Your task to perform on an android device: open app "Adobe Acrobat Reader: Edit PDF" Image 0: 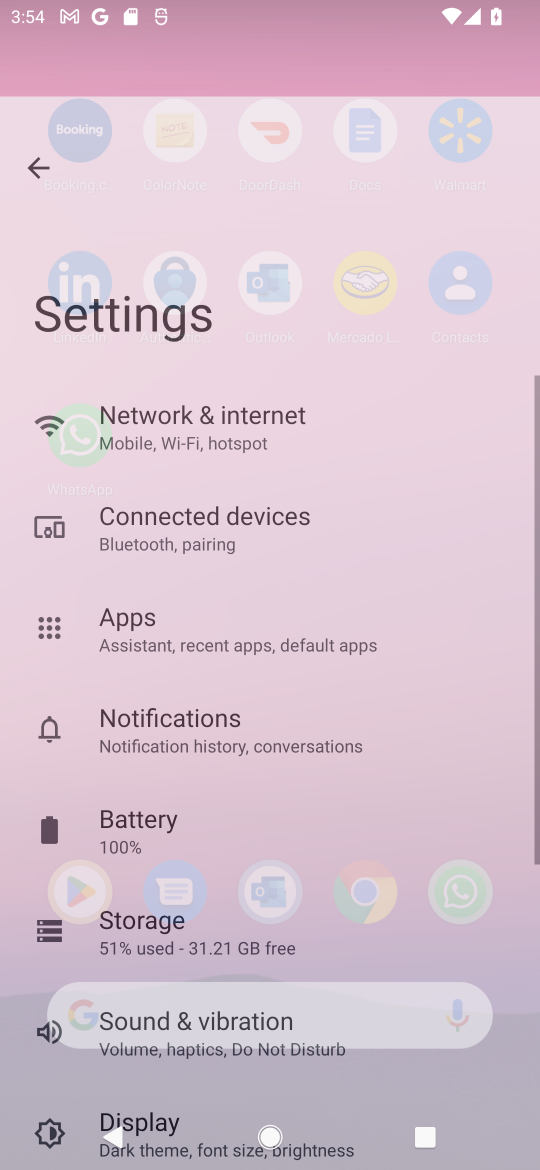
Step 0: click (408, 16)
Your task to perform on an android device: open app "Adobe Acrobat Reader: Edit PDF" Image 1: 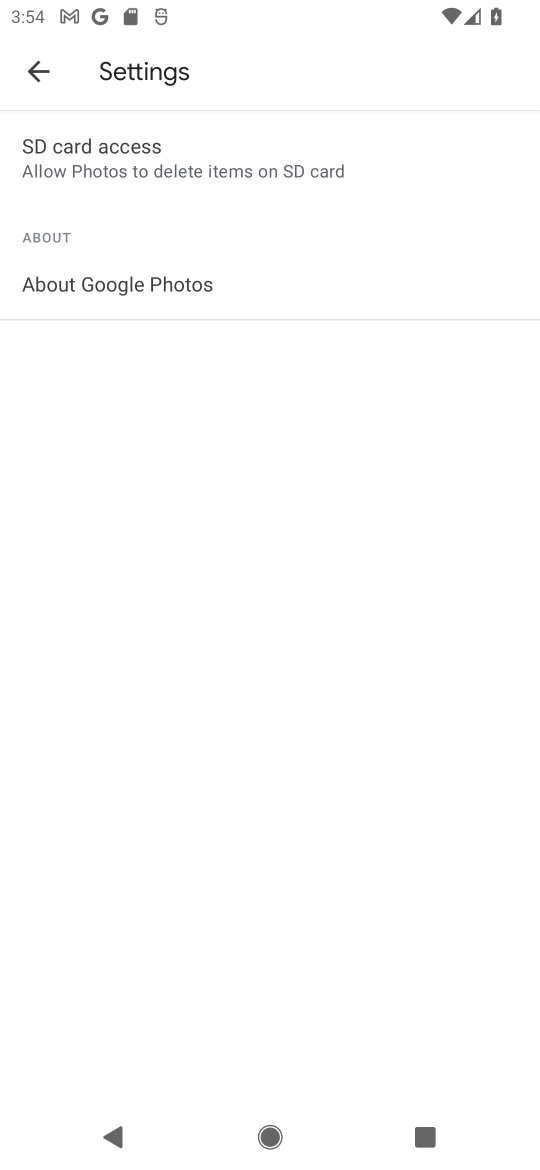
Step 1: press home button
Your task to perform on an android device: open app "Adobe Acrobat Reader: Edit PDF" Image 2: 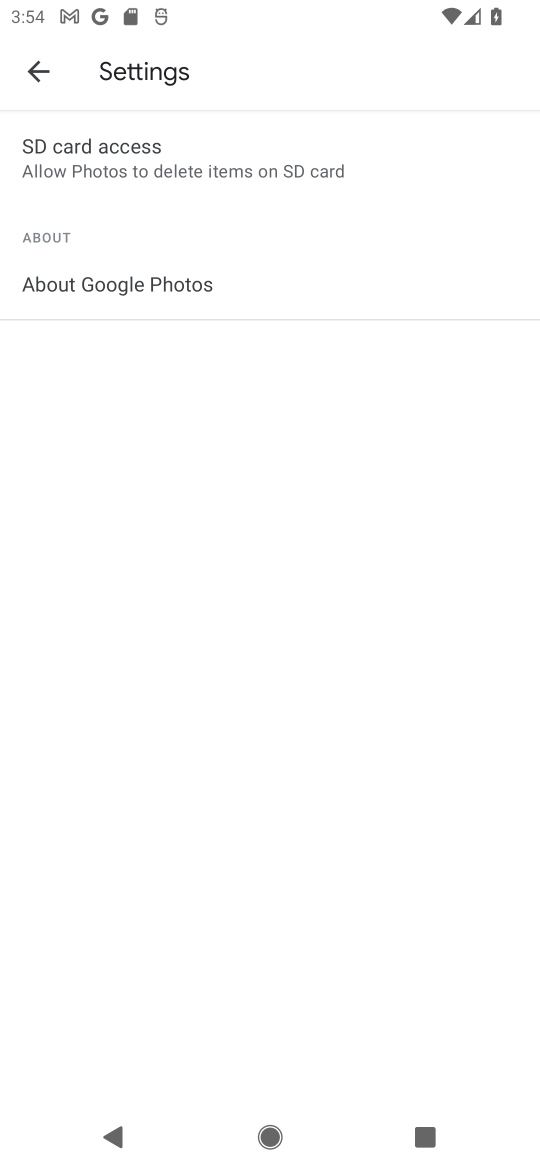
Step 2: press home button
Your task to perform on an android device: open app "Adobe Acrobat Reader: Edit PDF" Image 3: 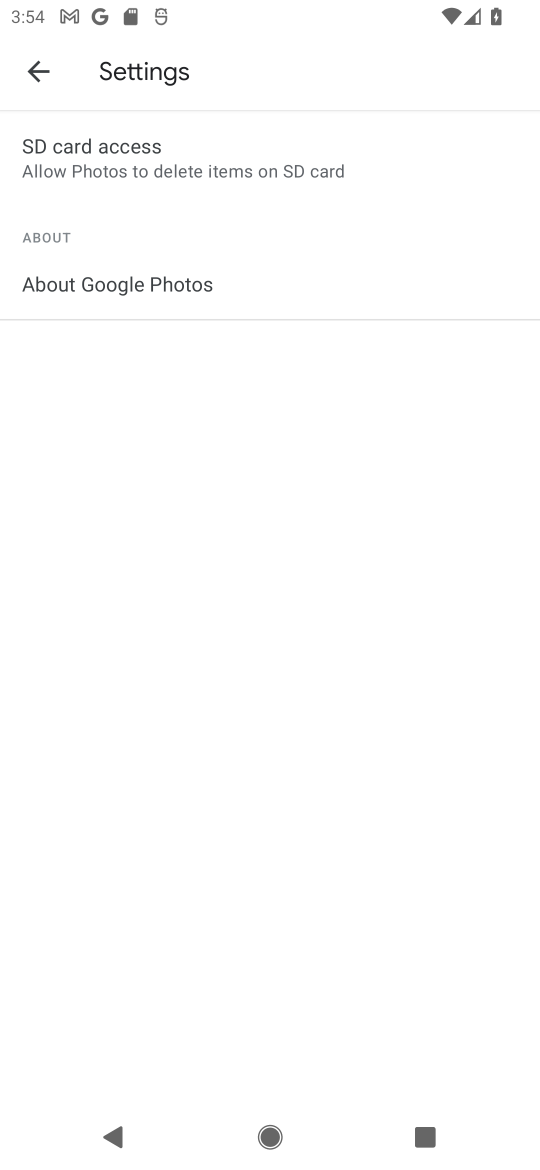
Step 3: press home button
Your task to perform on an android device: open app "Adobe Acrobat Reader: Edit PDF" Image 4: 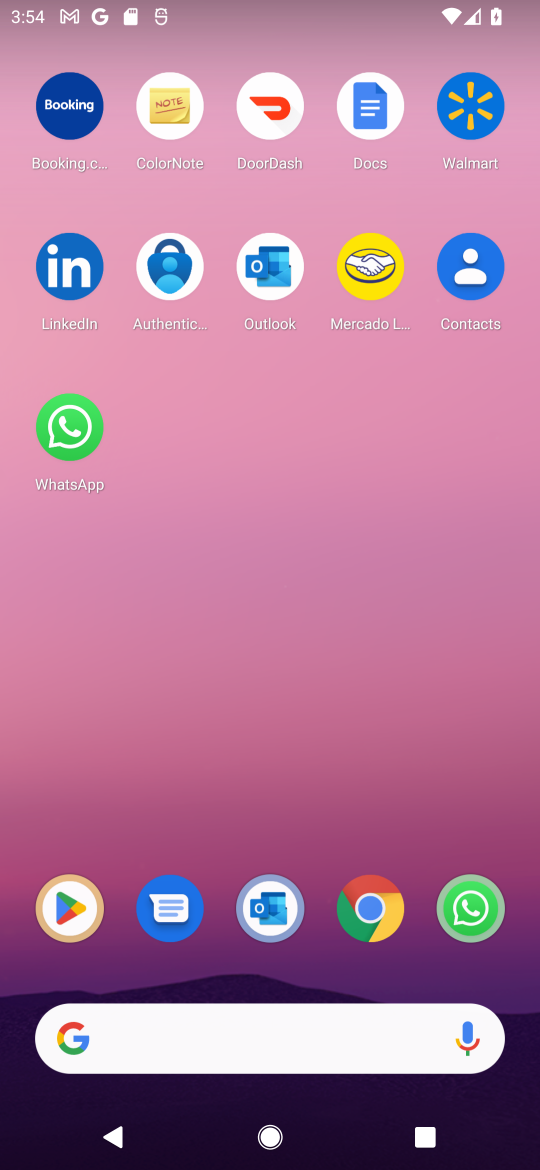
Step 4: press home button
Your task to perform on an android device: open app "Adobe Acrobat Reader: Edit PDF" Image 5: 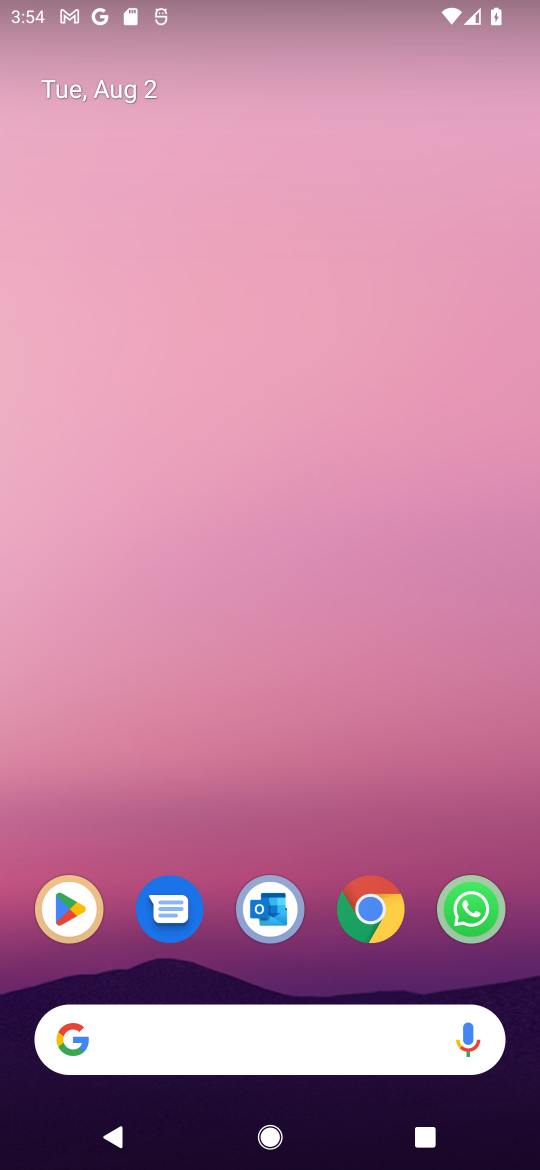
Step 5: press home button
Your task to perform on an android device: open app "Adobe Acrobat Reader: Edit PDF" Image 6: 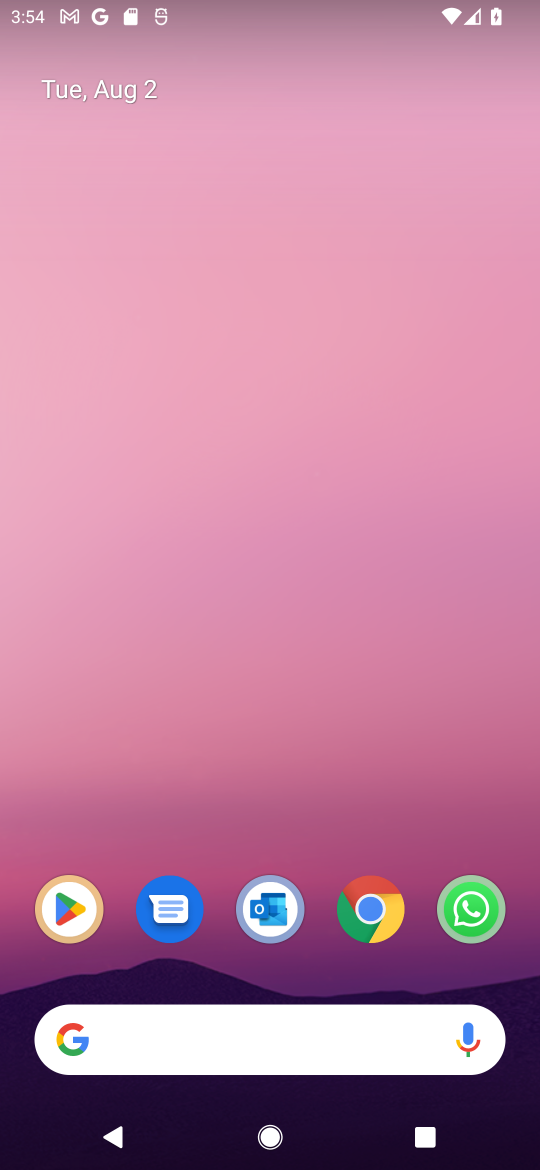
Step 6: press home button
Your task to perform on an android device: open app "Adobe Acrobat Reader: Edit PDF" Image 7: 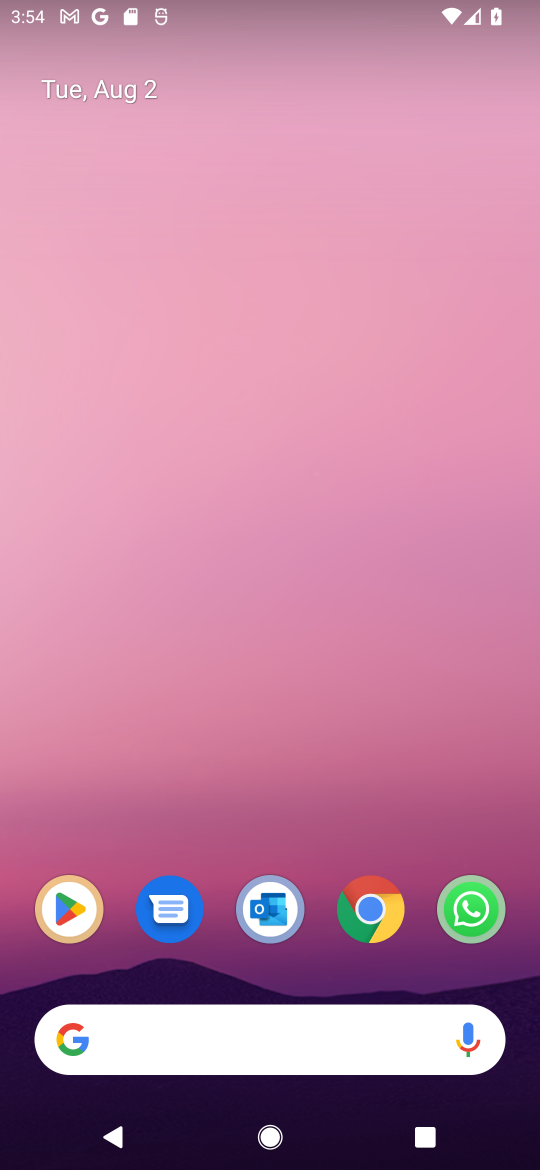
Step 7: press home button
Your task to perform on an android device: open app "Adobe Acrobat Reader: Edit PDF" Image 8: 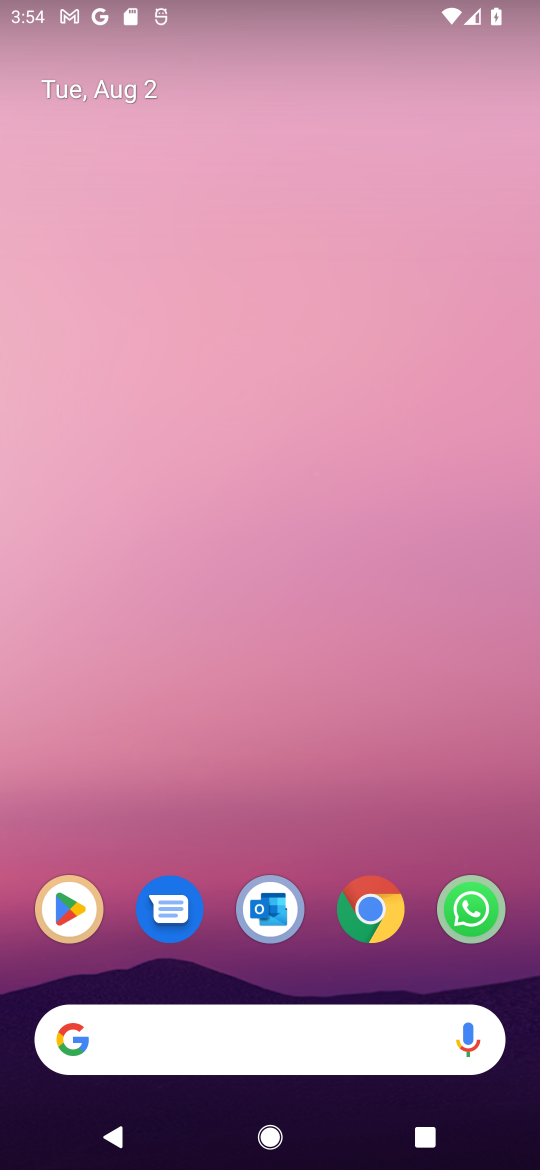
Step 8: press home button
Your task to perform on an android device: open app "Adobe Acrobat Reader: Edit PDF" Image 9: 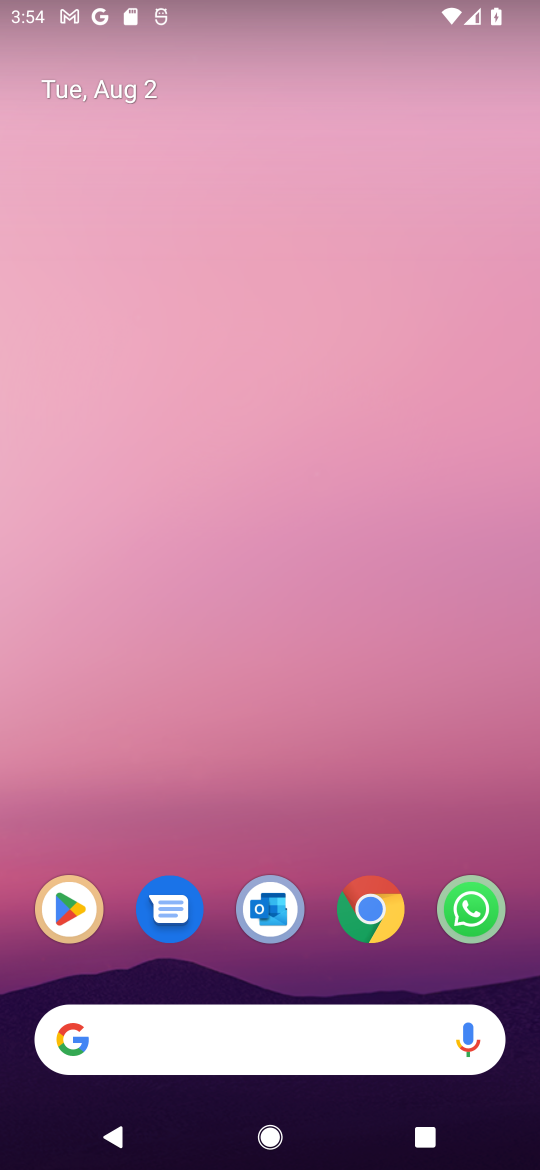
Step 9: click (68, 911)
Your task to perform on an android device: open app "Adobe Acrobat Reader: Edit PDF" Image 10: 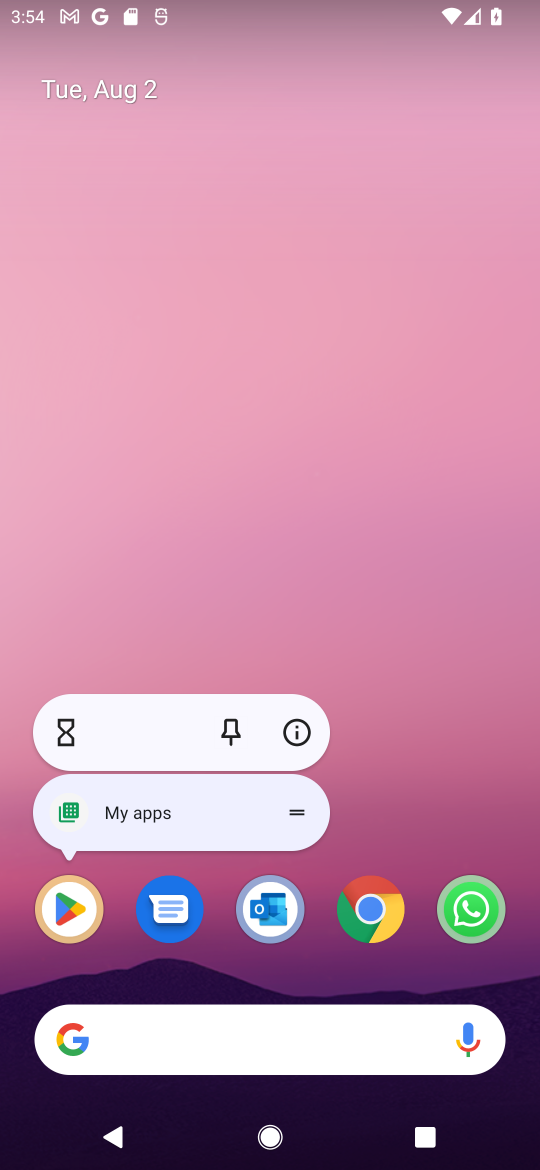
Step 10: click (295, 718)
Your task to perform on an android device: open app "Adobe Acrobat Reader: Edit PDF" Image 11: 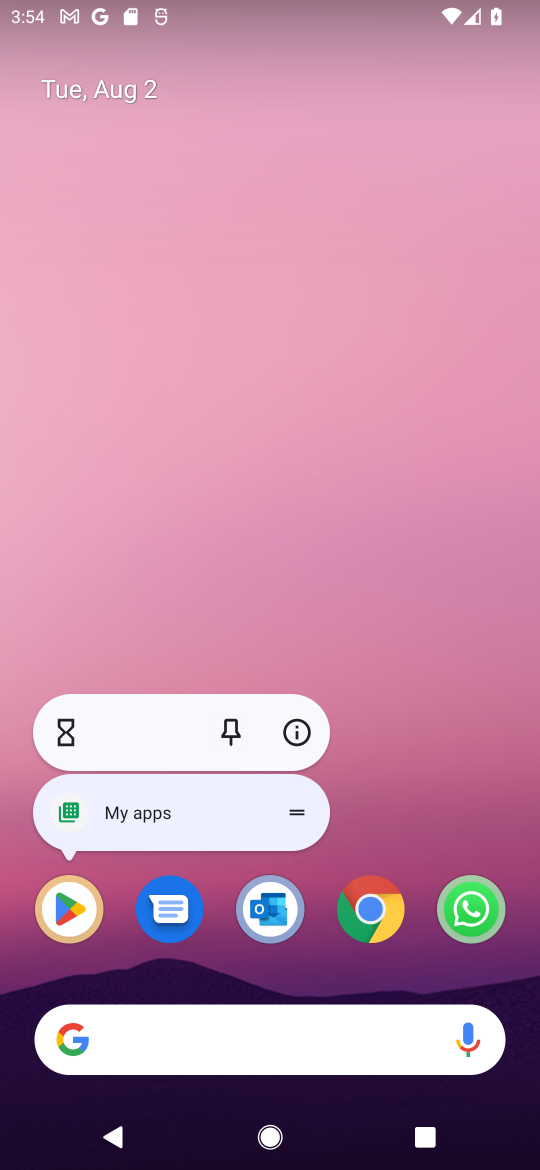
Step 11: click (298, 721)
Your task to perform on an android device: open app "Adobe Acrobat Reader: Edit PDF" Image 12: 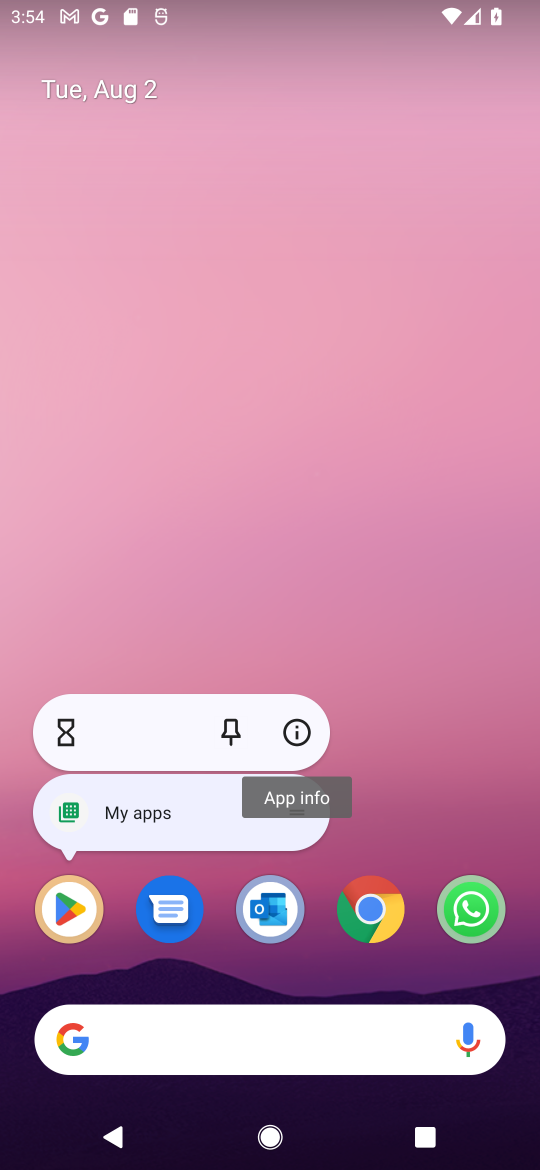
Step 12: click (306, 728)
Your task to perform on an android device: open app "Adobe Acrobat Reader: Edit PDF" Image 13: 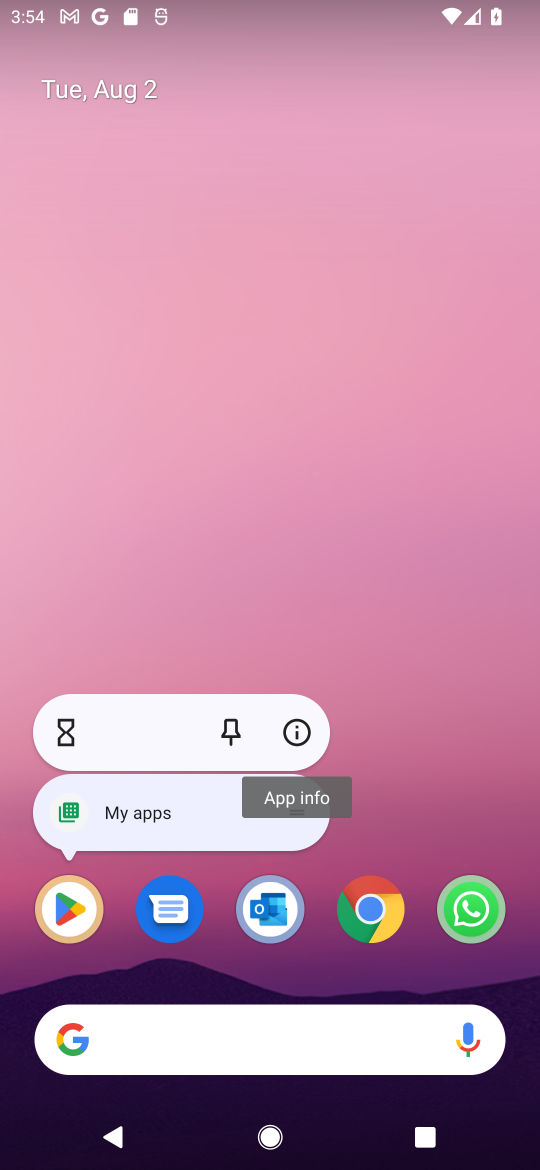
Step 13: click (306, 728)
Your task to perform on an android device: open app "Adobe Acrobat Reader: Edit PDF" Image 14: 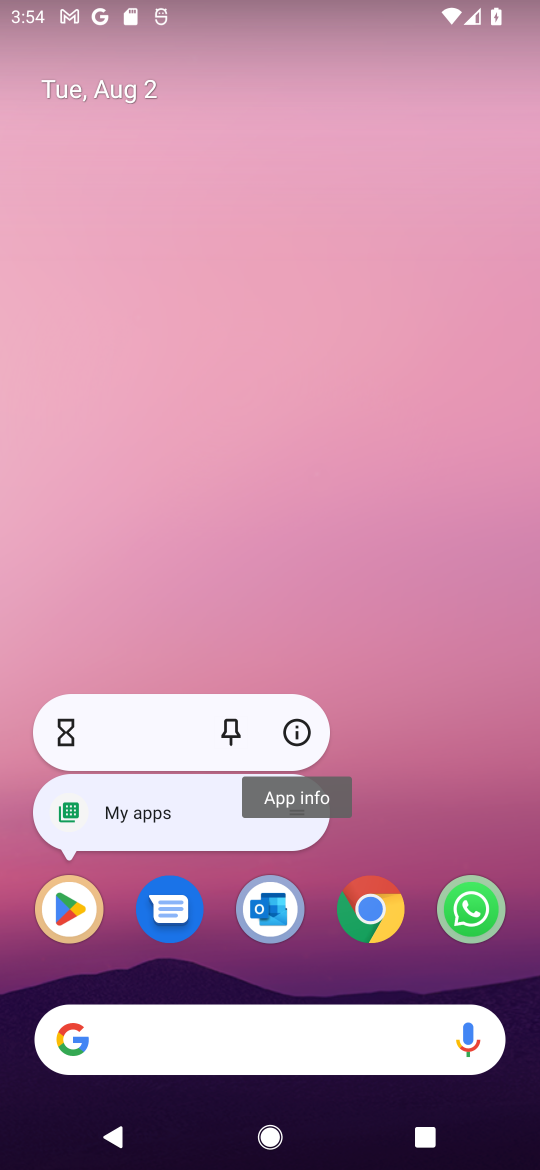
Step 14: click (289, 728)
Your task to perform on an android device: open app "Adobe Acrobat Reader: Edit PDF" Image 15: 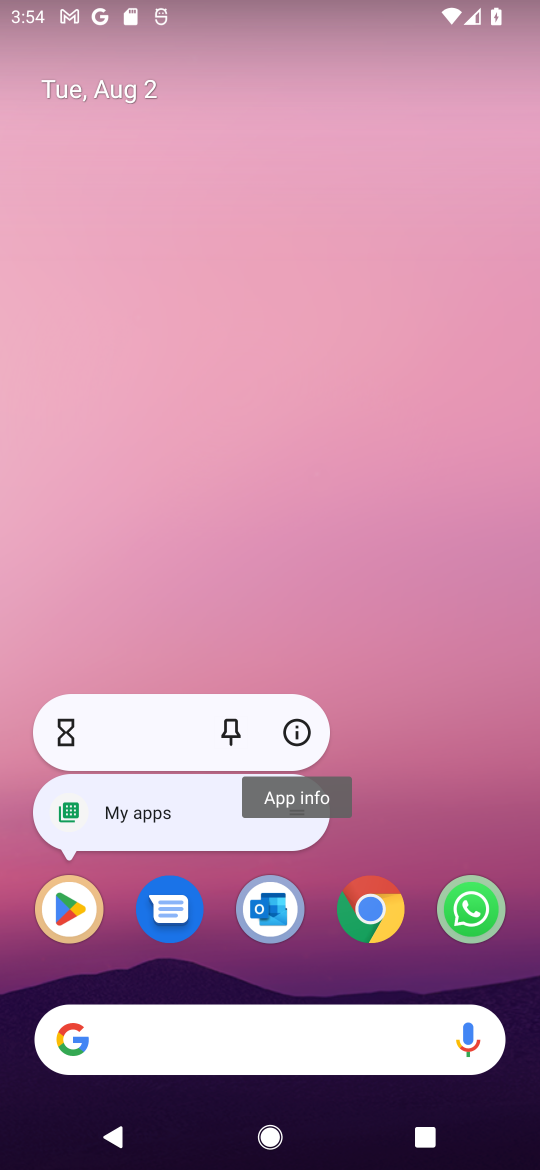
Step 15: click (286, 730)
Your task to perform on an android device: open app "Adobe Acrobat Reader: Edit PDF" Image 16: 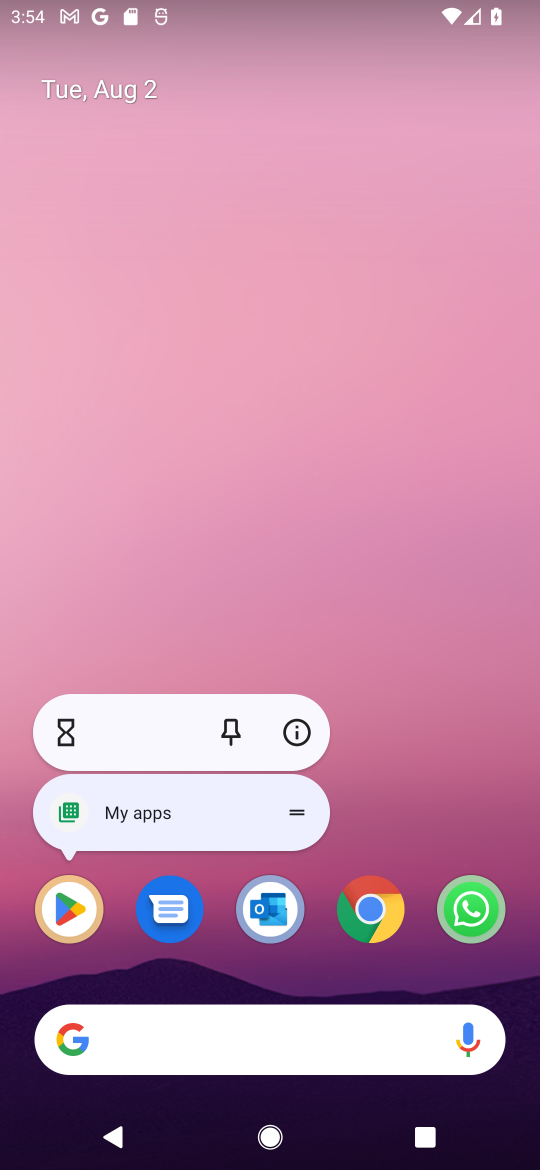
Step 16: click (309, 741)
Your task to perform on an android device: open app "Adobe Acrobat Reader: Edit PDF" Image 17: 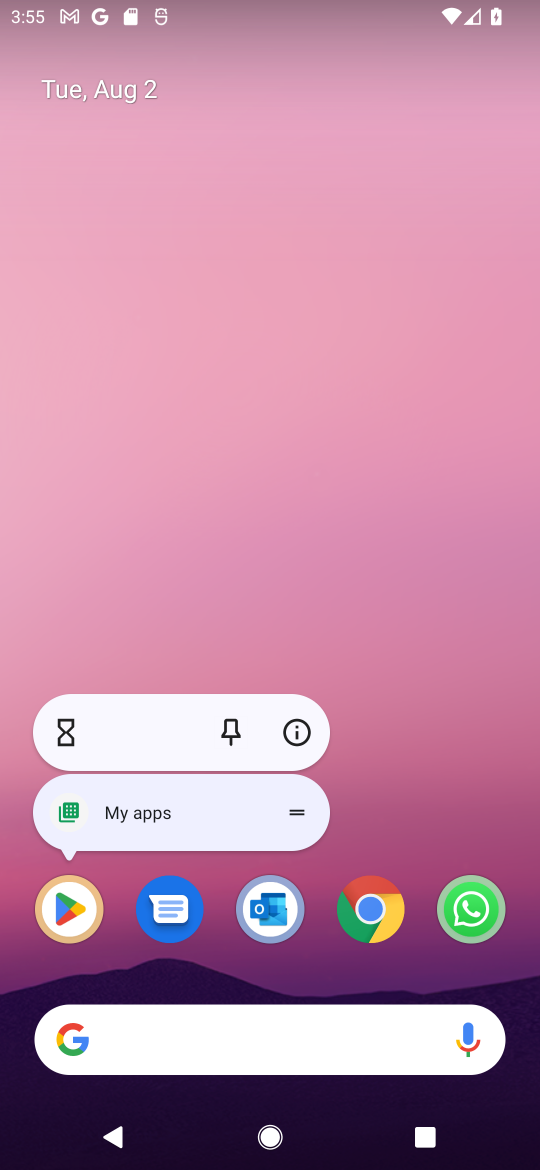
Step 17: click (303, 747)
Your task to perform on an android device: open app "Adobe Acrobat Reader: Edit PDF" Image 18: 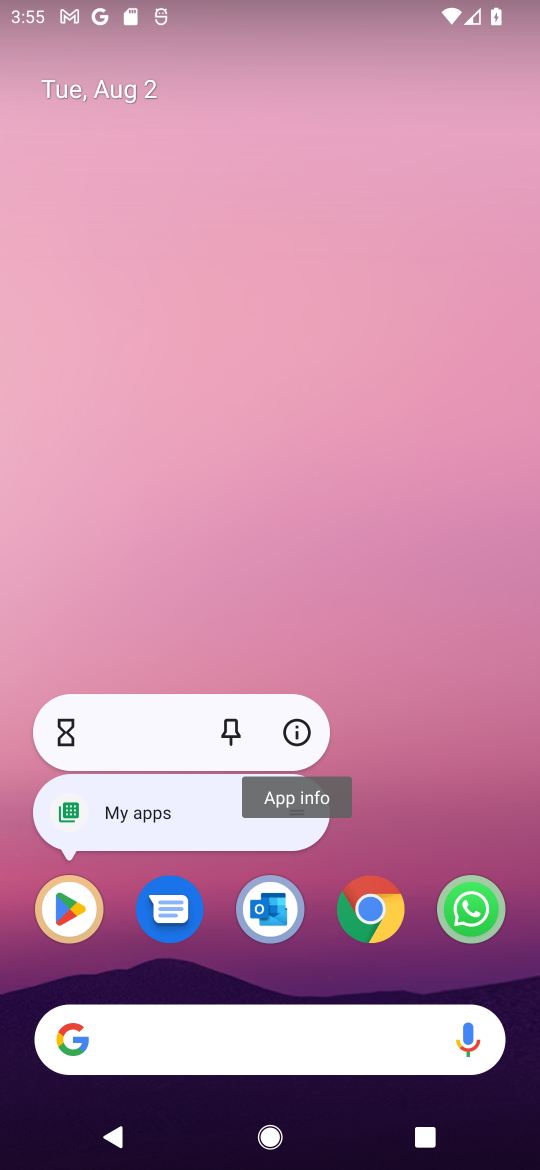
Step 18: click (303, 747)
Your task to perform on an android device: open app "Adobe Acrobat Reader: Edit PDF" Image 19: 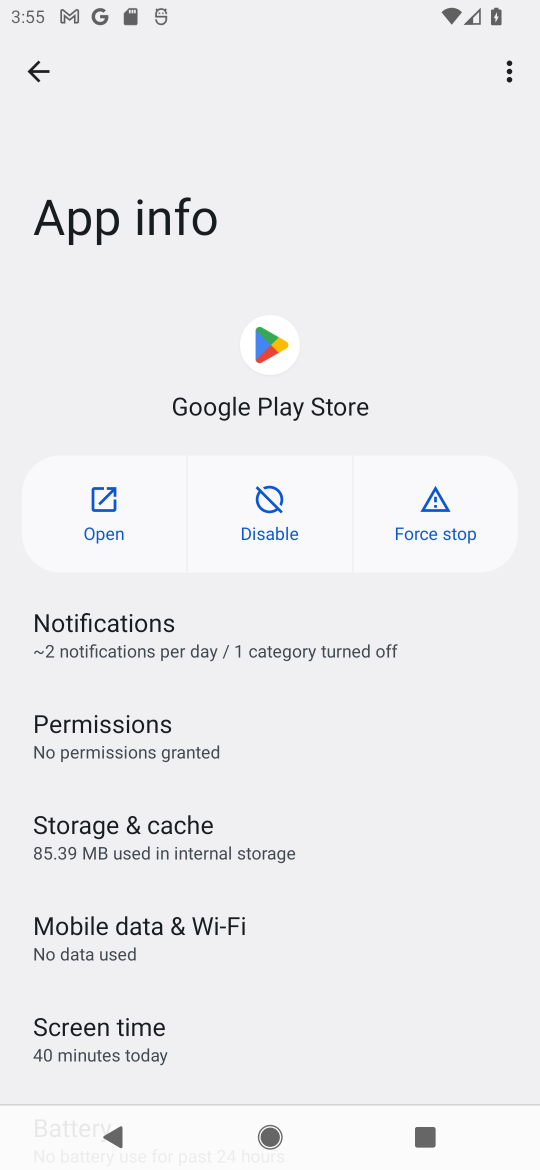
Step 19: click (164, 663)
Your task to perform on an android device: open app "Adobe Acrobat Reader: Edit PDF" Image 20: 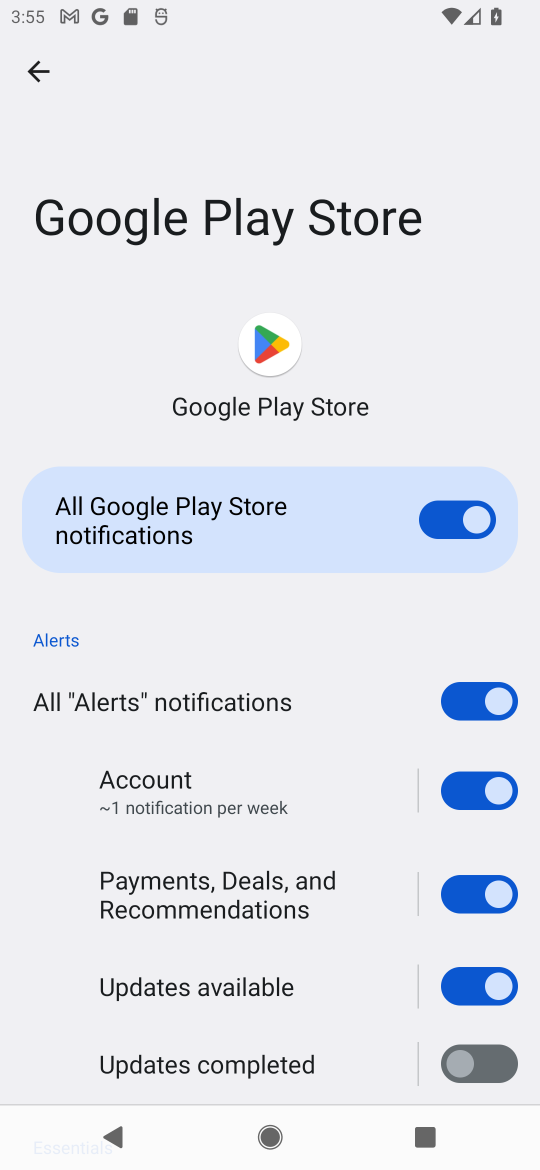
Step 20: press back button
Your task to perform on an android device: open app "Adobe Acrobat Reader: Edit PDF" Image 21: 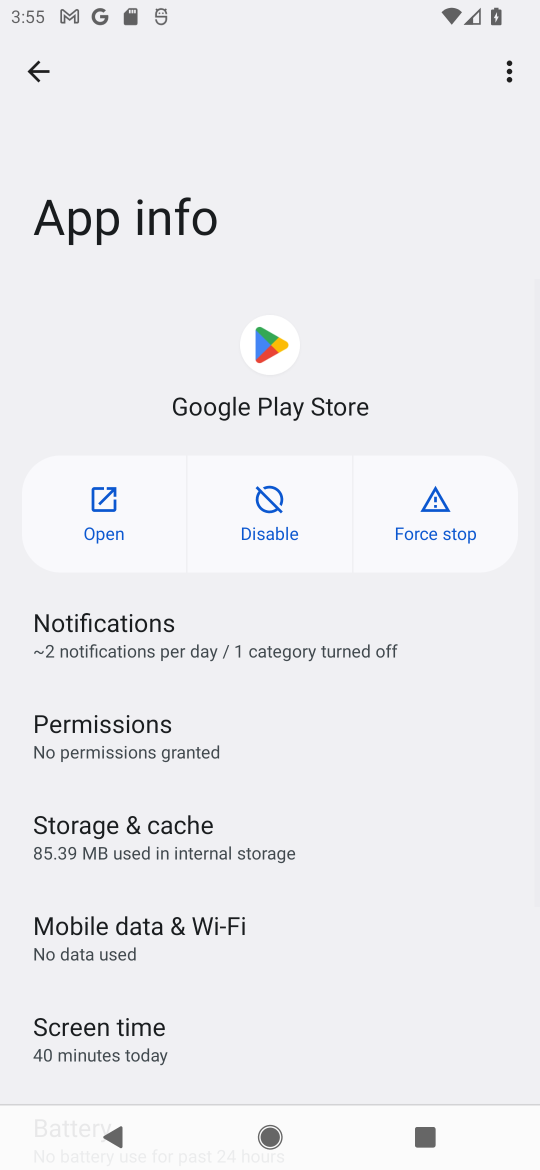
Step 21: click (97, 485)
Your task to perform on an android device: open app "Adobe Acrobat Reader: Edit PDF" Image 22: 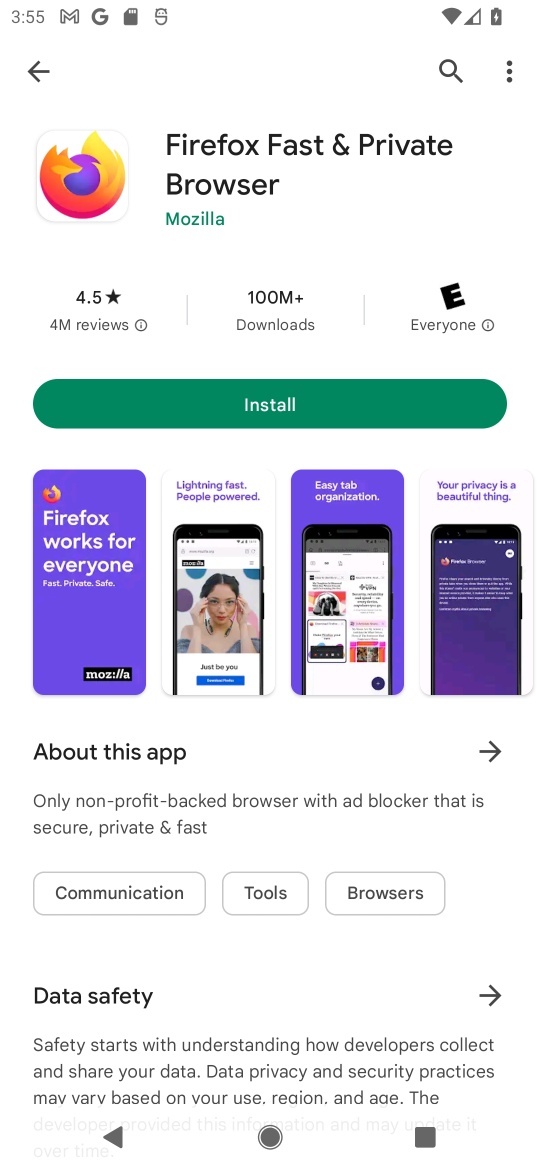
Step 22: click (446, 65)
Your task to perform on an android device: open app "Adobe Acrobat Reader: Edit PDF" Image 23: 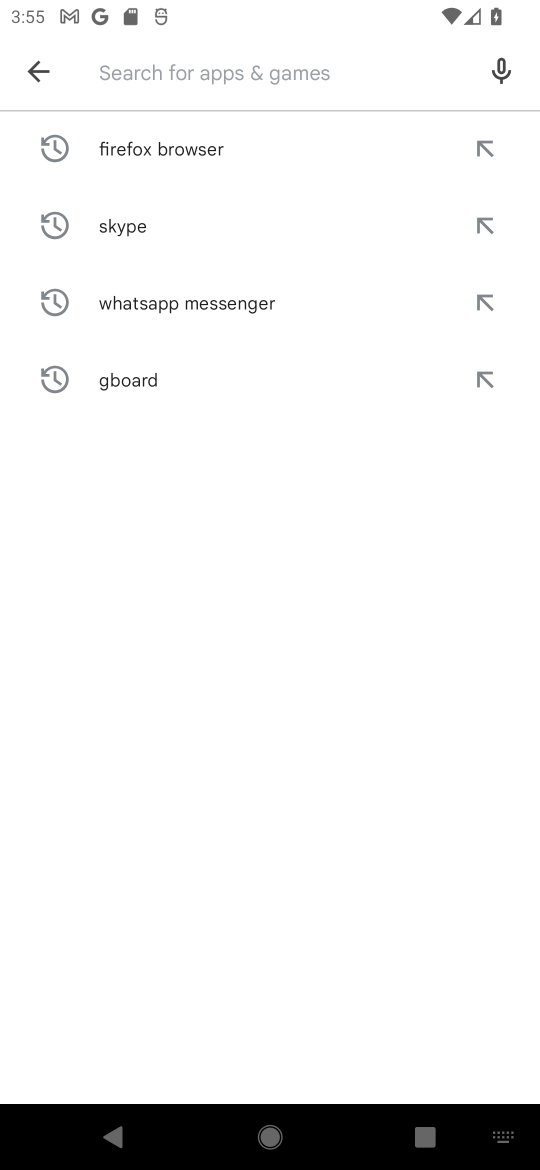
Step 23: type "Adobe Acrobat Reader: Edit PDF"
Your task to perform on an android device: open app "Adobe Acrobat Reader: Edit PDF" Image 24: 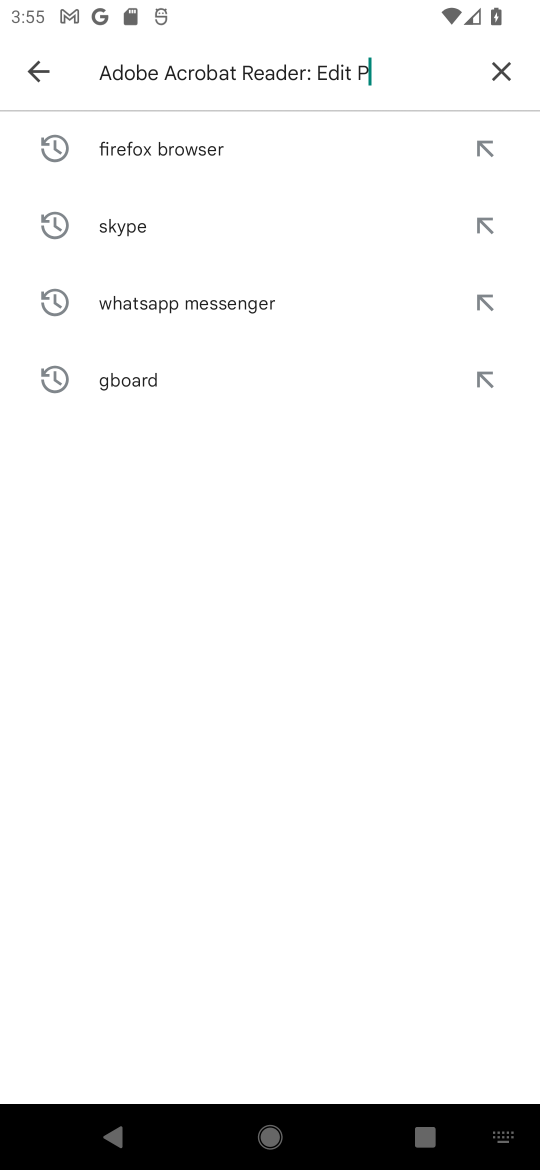
Step 24: type ""
Your task to perform on an android device: open app "Adobe Acrobat Reader: Edit PDF" Image 25: 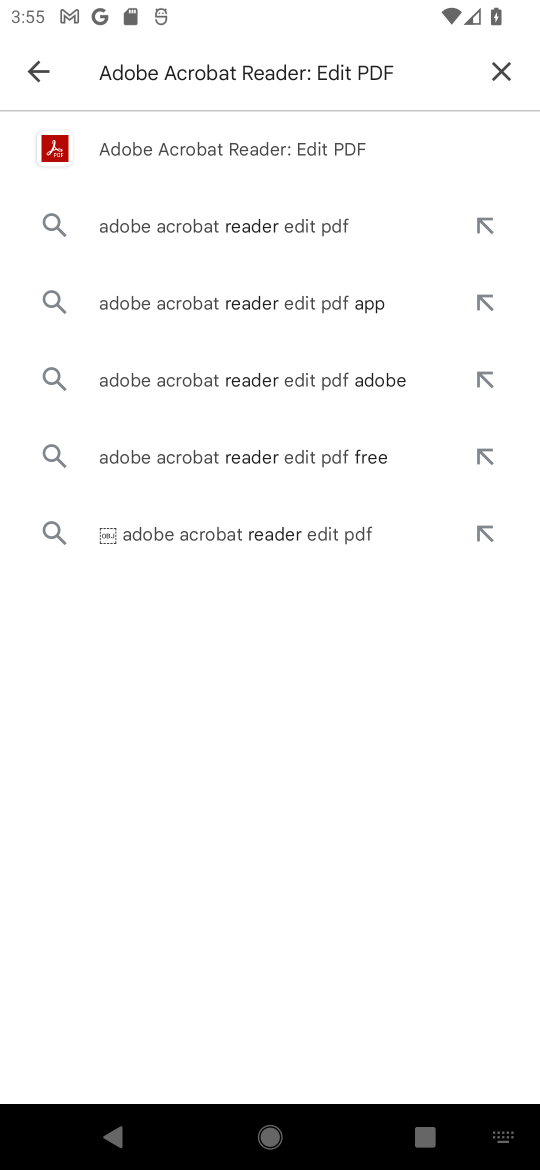
Step 25: click (157, 130)
Your task to perform on an android device: open app "Adobe Acrobat Reader: Edit PDF" Image 26: 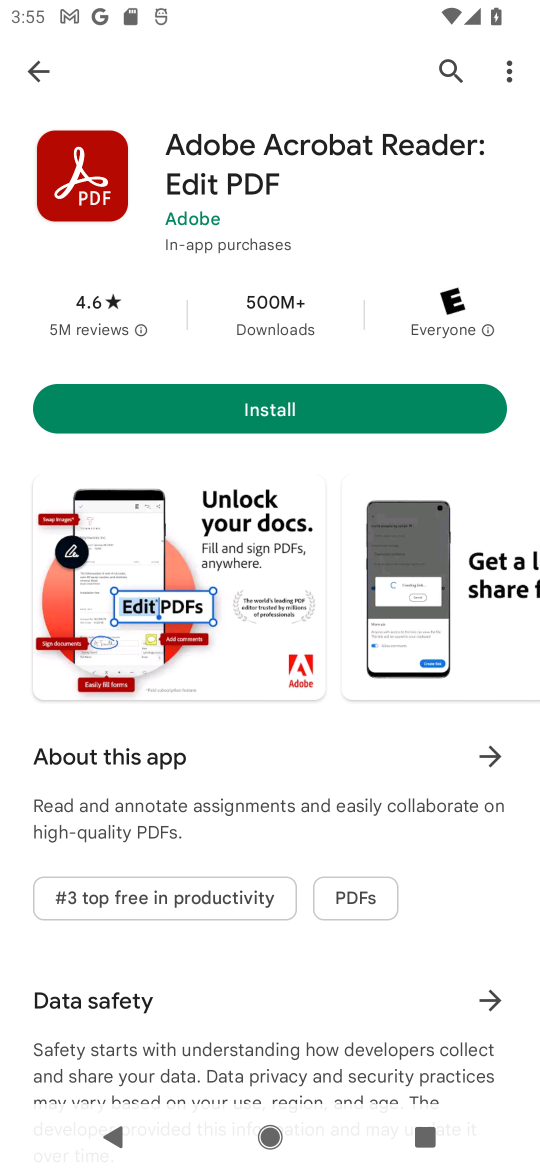
Step 26: task complete